Your task to perform on an android device: check data usage Image 0: 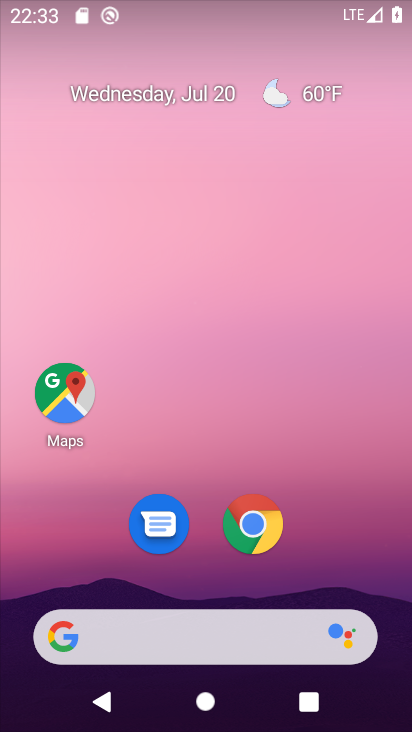
Step 0: drag from (320, 535) to (253, 32)
Your task to perform on an android device: check data usage Image 1: 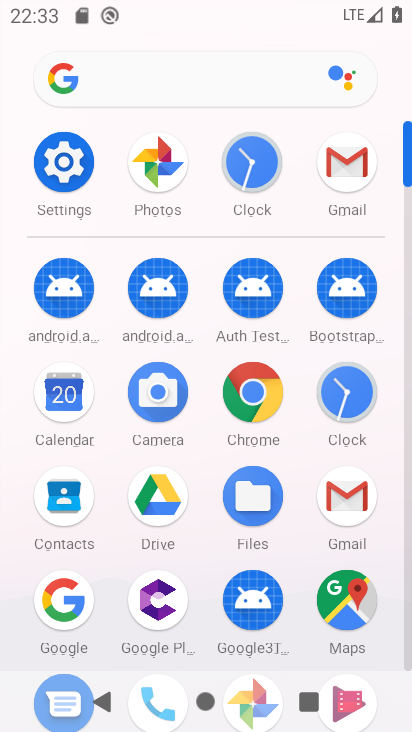
Step 1: click (66, 168)
Your task to perform on an android device: check data usage Image 2: 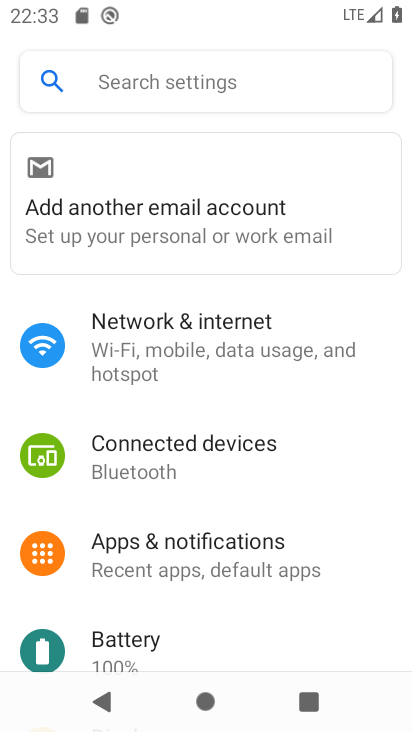
Step 2: click (187, 345)
Your task to perform on an android device: check data usage Image 3: 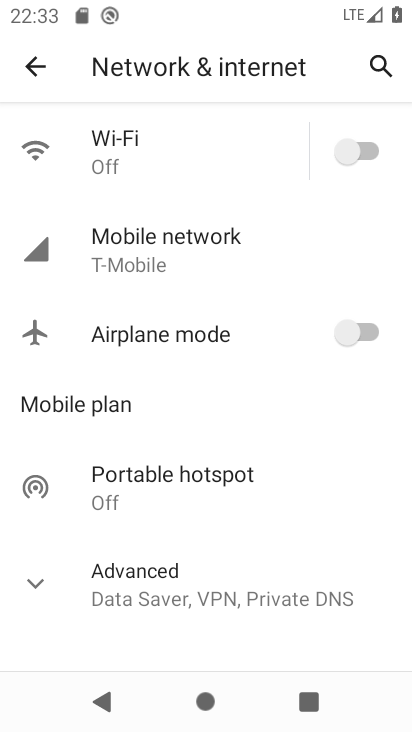
Step 3: click (194, 254)
Your task to perform on an android device: check data usage Image 4: 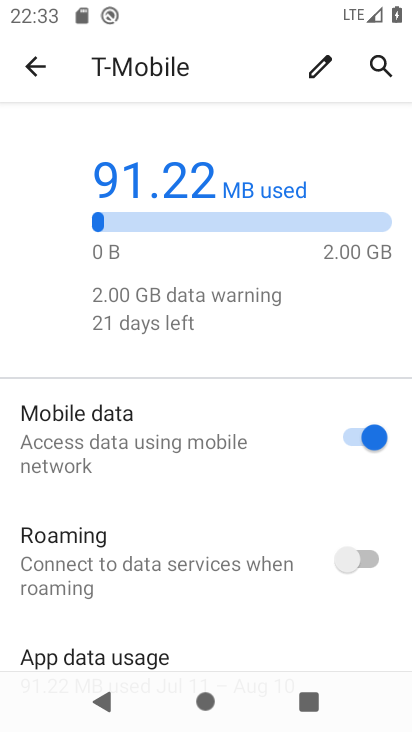
Step 4: task complete